Your task to perform on an android device: Show me popular videos on Youtube Image 0: 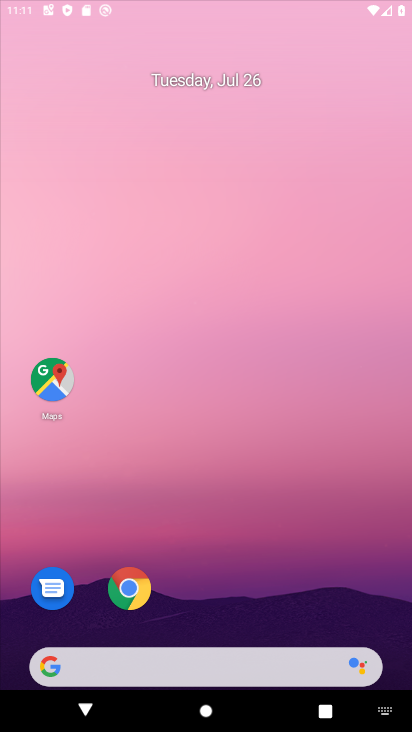
Step 0: drag from (237, 581) to (281, 36)
Your task to perform on an android device: Show me popular videos on Youtube Image 1: 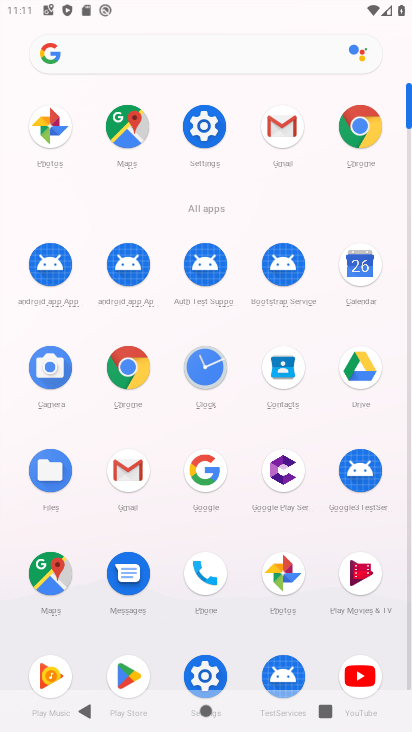
Step 1: click (367, 117)
Your task to perform on an android device: Show me popular videos on Youtube Image 2: 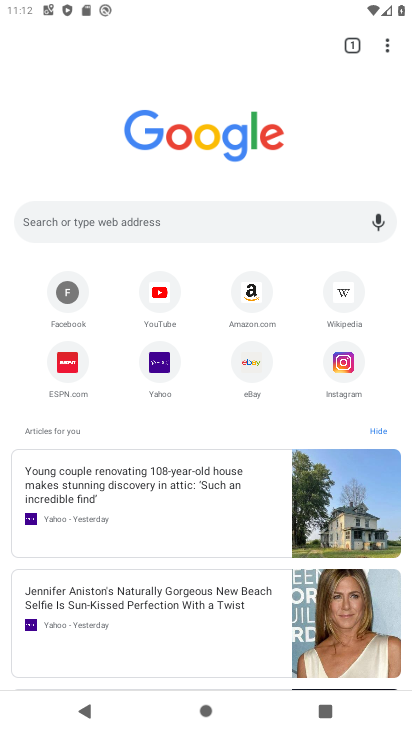
Step 2: drag from (387, 43) to (227, 390)
Your task to perform on an android device: Show me popular videos on Youtube Image 3: 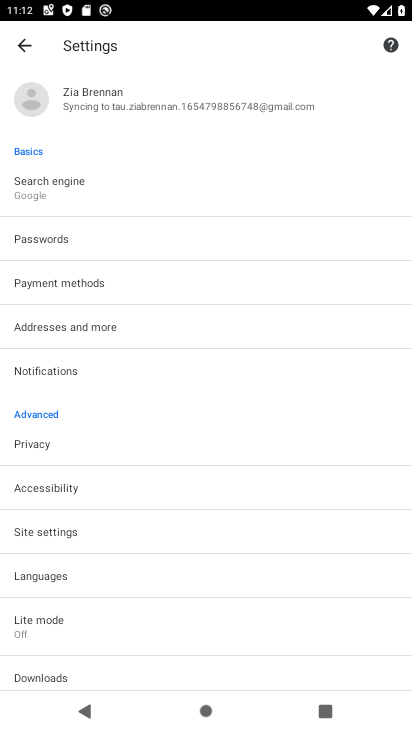
Step 3: click (83, 102)
Your task to perform on an android device: Show me popular videos on Youtube Image 4: 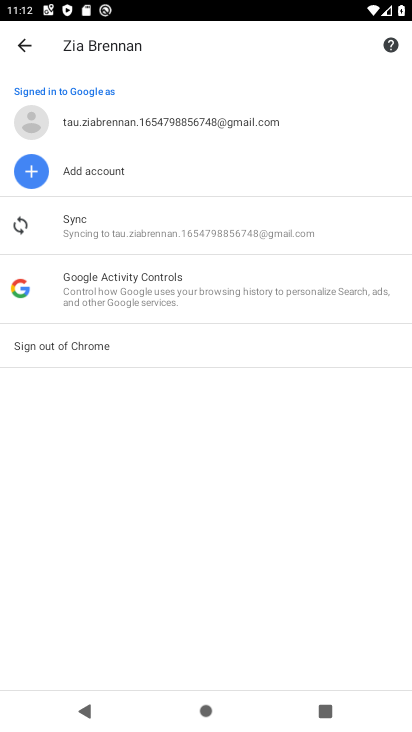
Step 4: click (81, 230)
Your task to perform on an android device: Show me popular videos on Youtube Image 5: 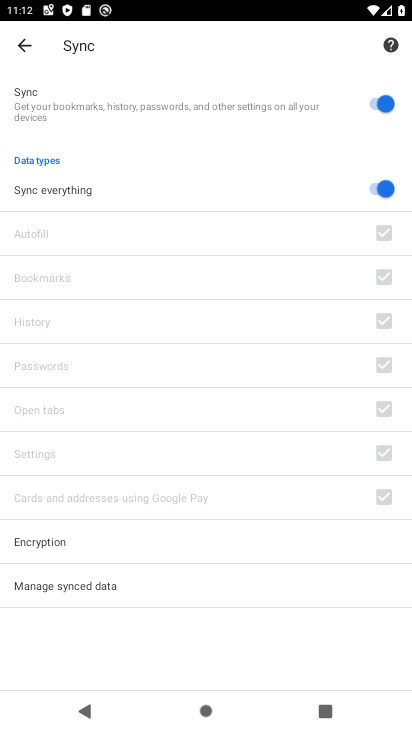
Step 5: task complete